Your task to perform on an android device: See recent photos Image 0: 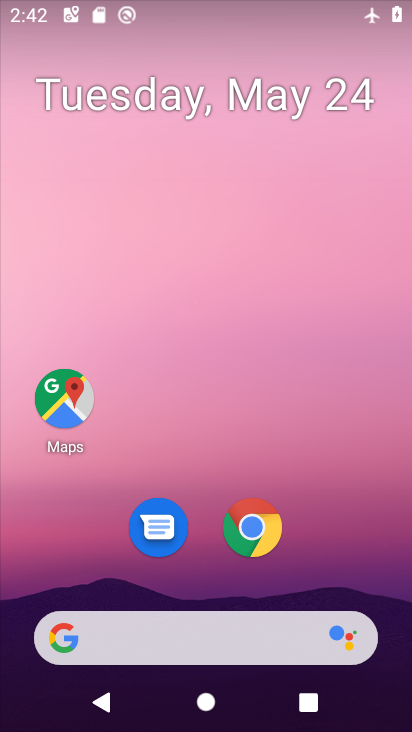
Step 0: drag from (358, 589) to (366, 20)
Your task to perform on an android device: See recent photos Image 1: 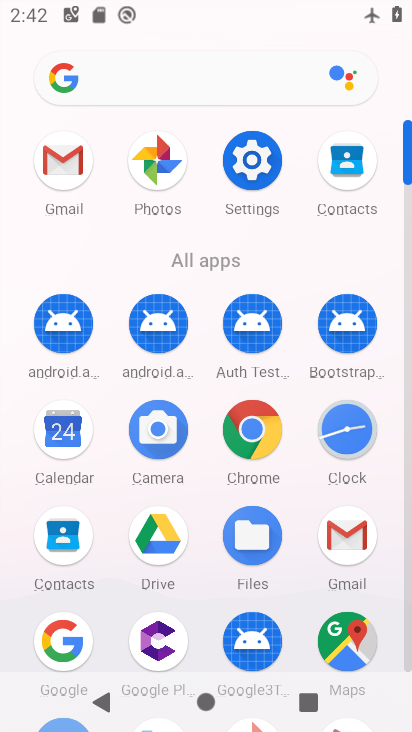
Step 1: click (155, 164)
Your task to perform on an android device: See recent photos Image 2: 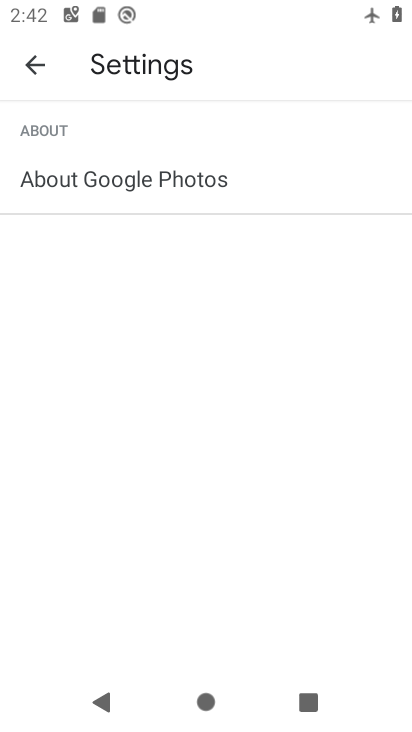
Step 2: click (34, 70)
Your task to perform on an android device: See recent photos Image 3: 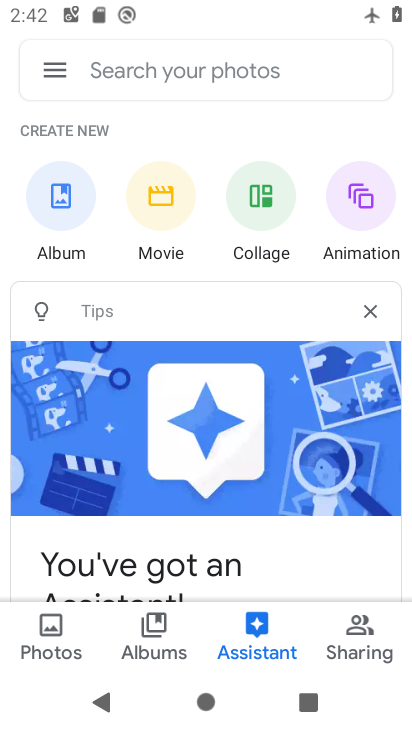
Step 3: task complete